Your task to perform on an android device: When is my next meeting? Image 0: 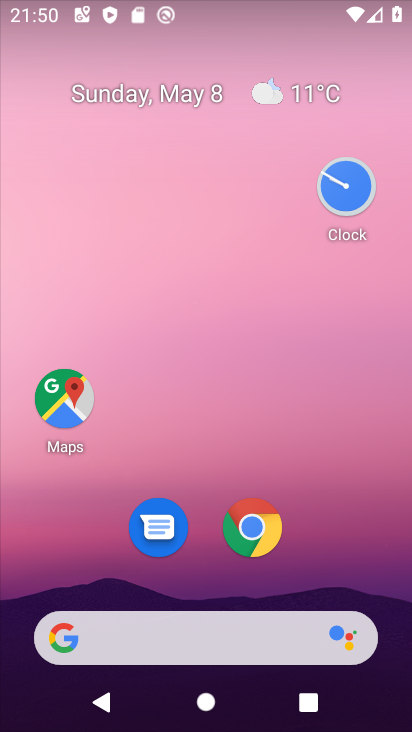
Step 0: click (188, 92)
Your task to perform on an android device: When is my next meeting? Image 1: 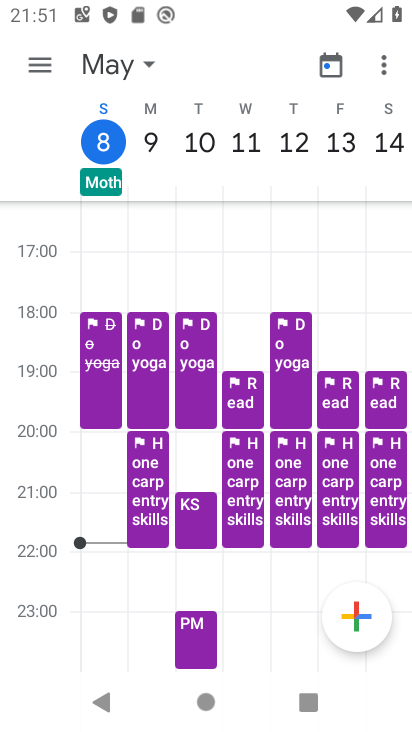
Step 1: click (54, 61)
Your task to perform on an android device: When is my next meeting? Image 2: 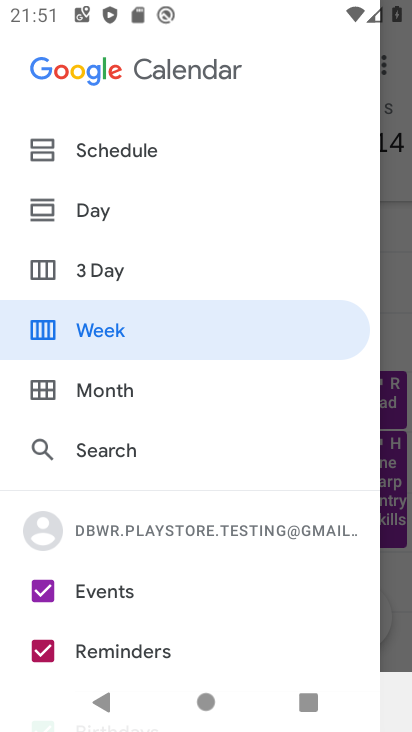
Step 2: click (109, 149)
Your task to perform on an android device: When is my next meeting? Image 3: 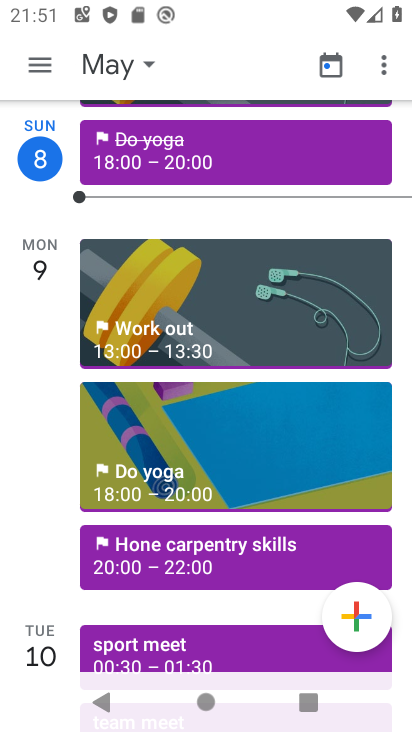
Step 3: task complete